Your task to perform on an android device: Open Yahoo.com Image 0: 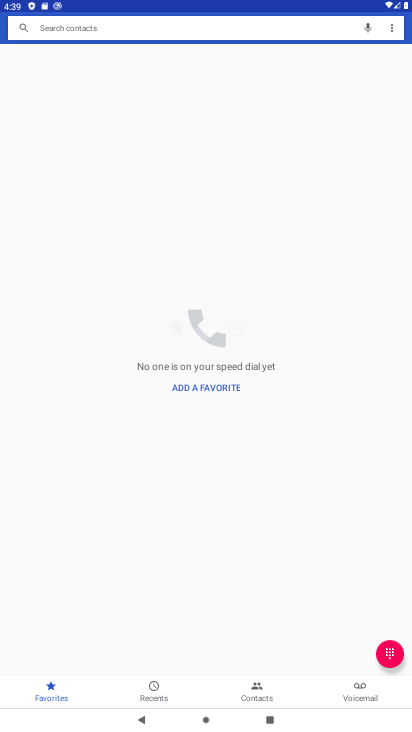
Step 0: press home button
Your task to perform on an android device: Open Yahoo.com Image 1: 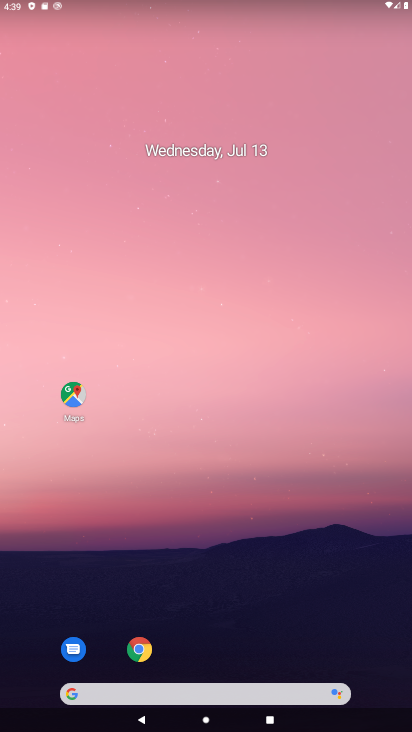
Step 1: drag from (252, 605) to (301, 0)
Your task to perform on an android device: Open Yahoo.com Image 2: 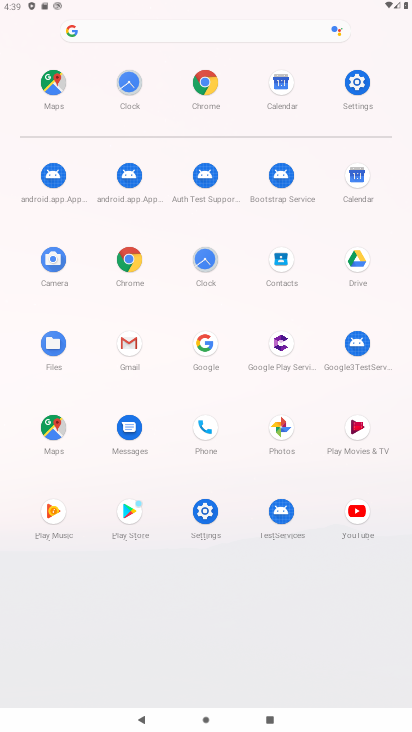
Step 2: click (125, 267)
Your task to perform on an android device: Open Yahoo.com Image 3: 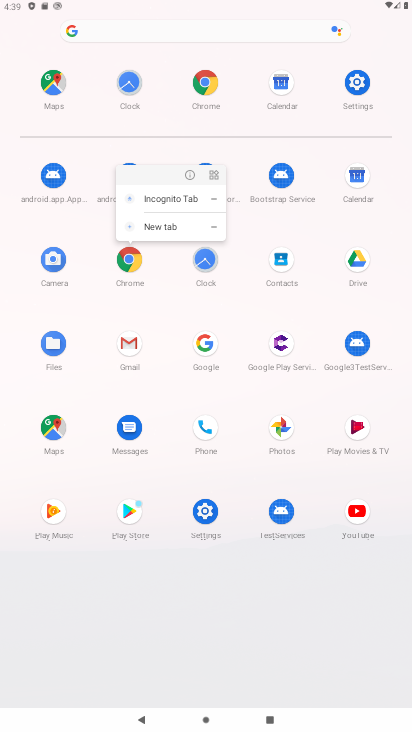
Step 3: click (124, 261)
Your task to perform on an android device: Open Yahoo.com Image 4: 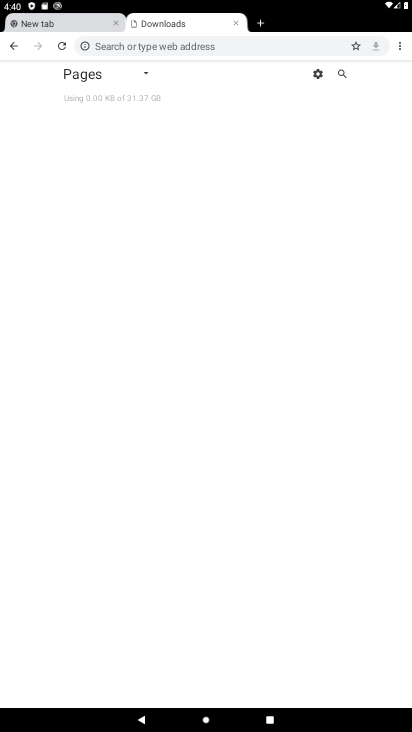
Step 4: click (12, 50)
Your task to perform on an android device: Open Yahoo.com Image 5: 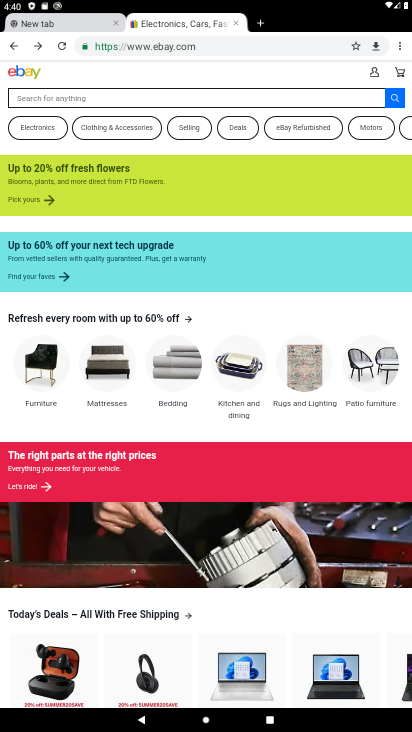
Step 5: click (11, 49)
Your task to perform on an android device: Open Yahoo.com Image 6: 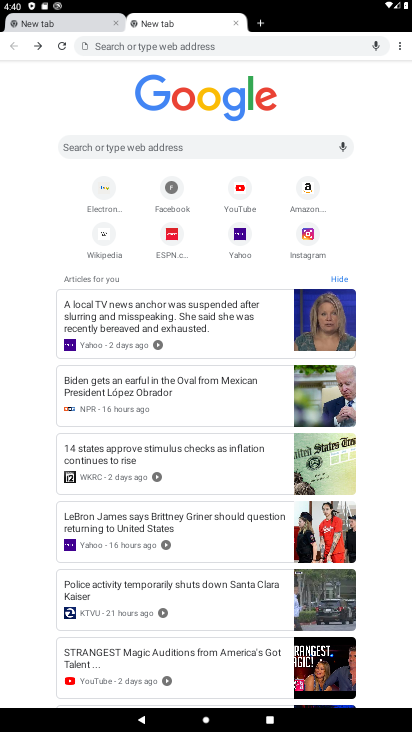
Step 6: click (235, 239)
Your task to perform on an android device: Open Yahoo.com Image 7: 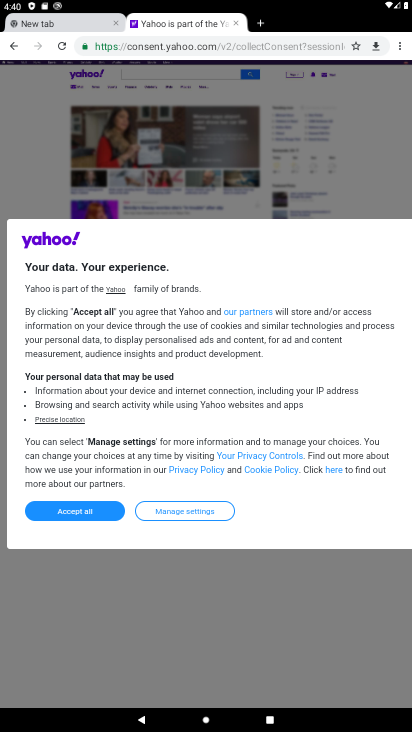
Step 7: task complete